Your task to perform on an android device: toggle show notifications on the lock screen Image 0: 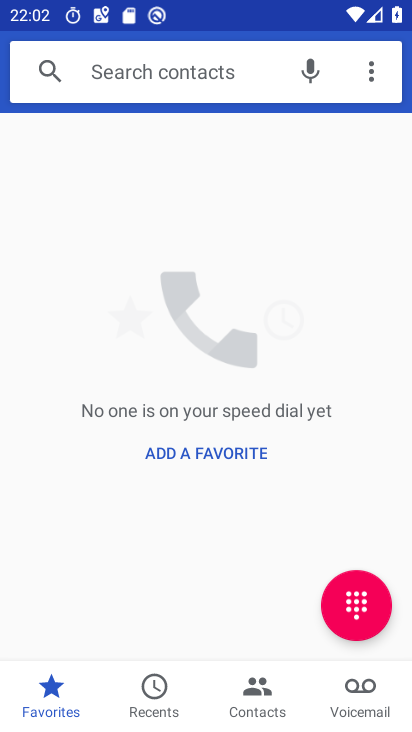
Step 0: press home button
Your task to perform on an android device: toggle show notifications on the lock screen Image 1: 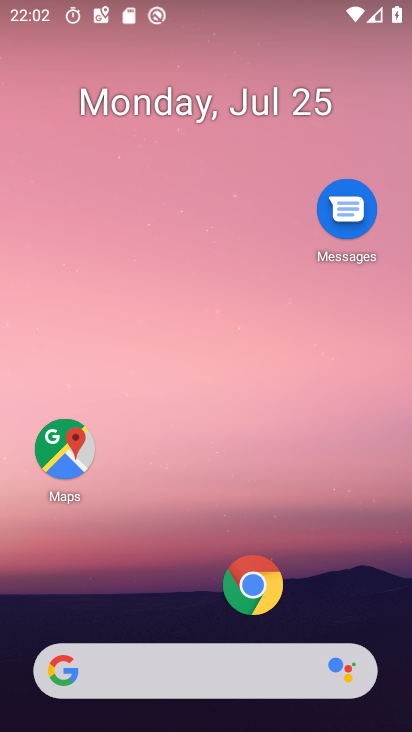
Step 1: drag from (182, 661) to (302, 115)
Your task to perform on an android device: toggle show notifications on the lock screen Image 2: 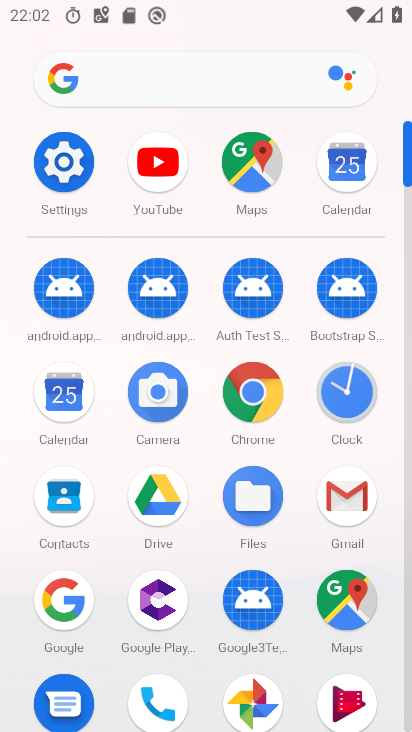
Step 2: click (76, 164)
Your task to perform on an android device: toggle show notifications on the lock screen Image 3: 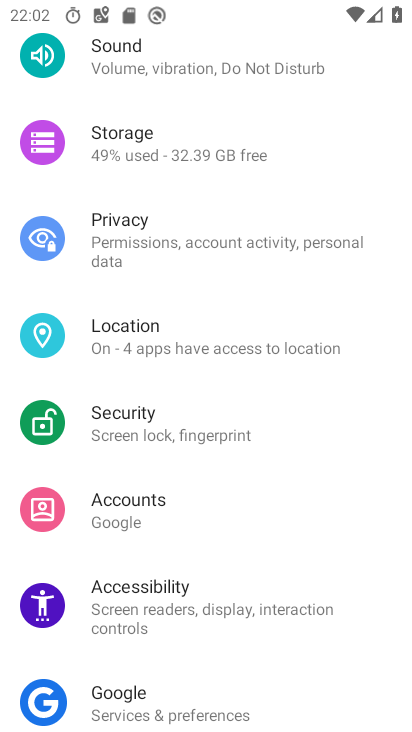
Step 3: drag from (222, 545) to (369, 87)
Your task to perform on an android device: toggle show notifications on the lock screen Image 4: 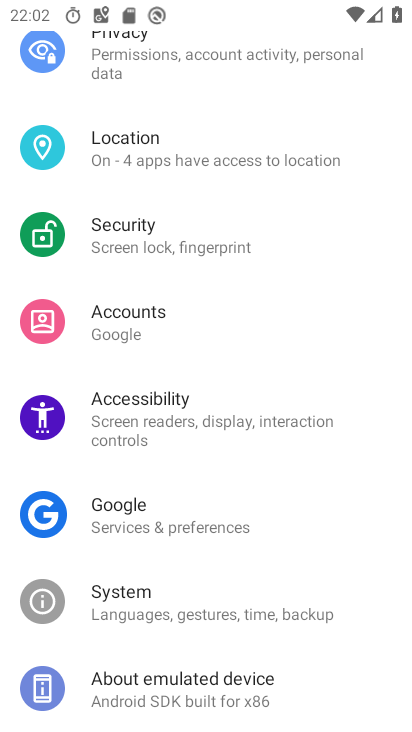
Step 4: drag from (285, 211) to (237, 650)
Your task to perform on an android device: toggle show notifications on the lock screen Image 5: 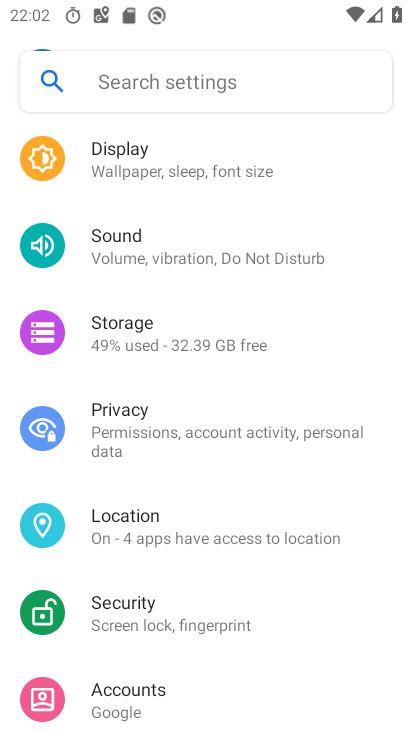
Step 5: drag from (288, 211) to (242, 600)
Your task to perform on an android device: toggle show notifications on the lock screen Image 6: 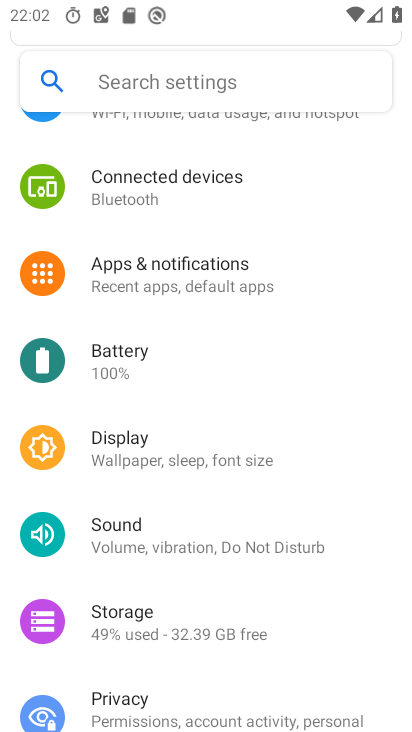
Step 6: click (222, 270)
Your task to perform on an android device: toggle show notifications on the lock screen Image 7: 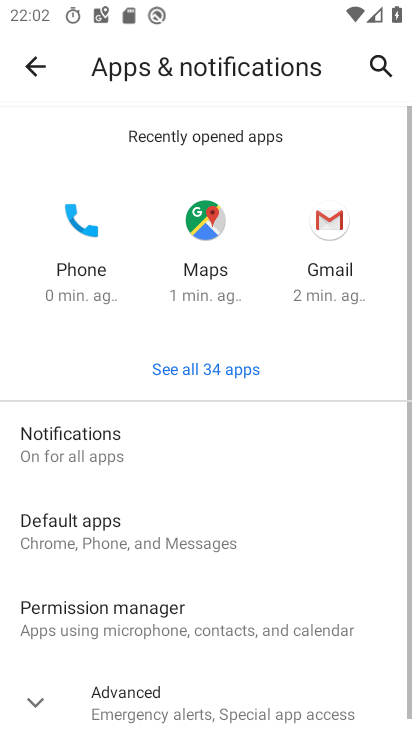
Step 7: click (134, 442)
Your task to perform on an android device: toggle show notifications on the lock screen Image 8: 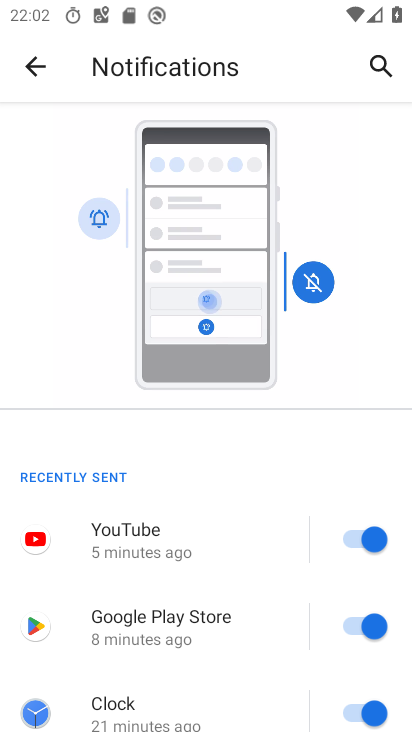
Step 8: drag from (234, 648) to (343, 106)
Your task to perform on an android device: toggle show notifications on the lock screen Image 9: 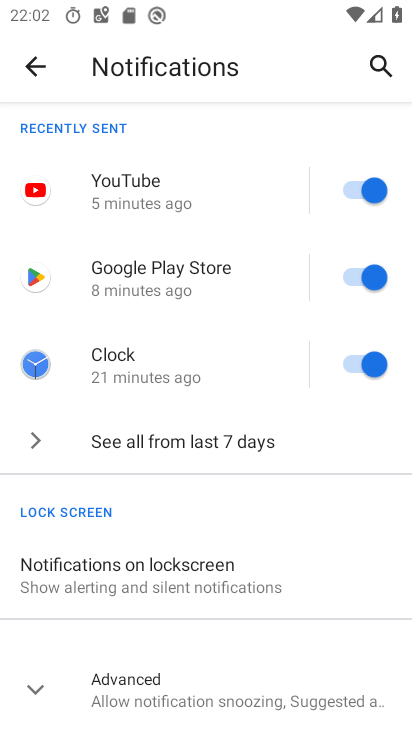
Step 9: click (153, 556)
Your task to perform on an android device: toggle show notifications on the lock screen Image 10: 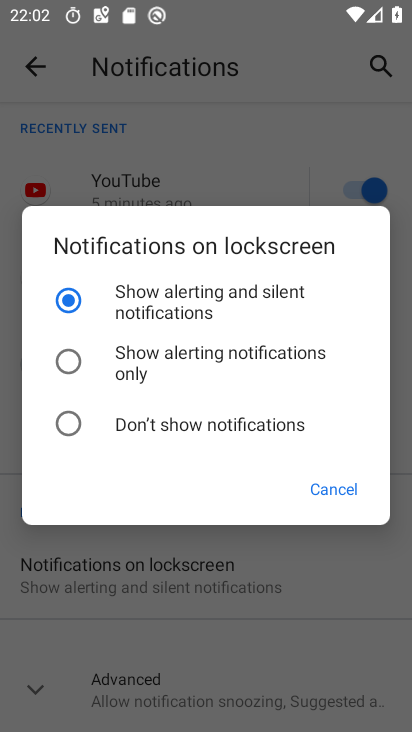
Step 10: click (71, 422)
Your task to perform on an android device: toggle show notifications on the lock screen Image 11: 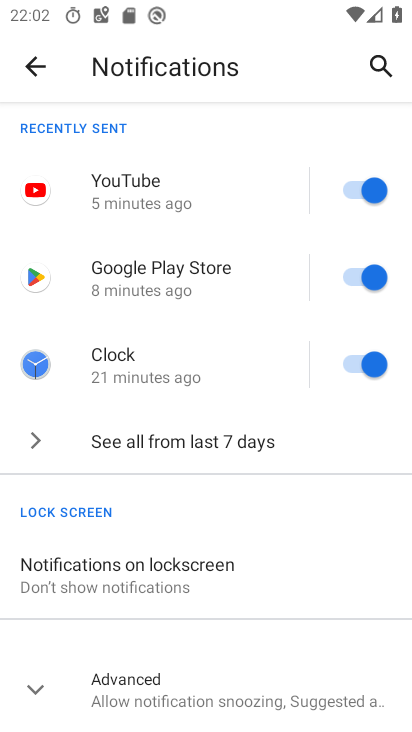
Step 11: task complete